Your task to perform on an android device: Open the Play Movies app and select the watchlist tab. Image 0: 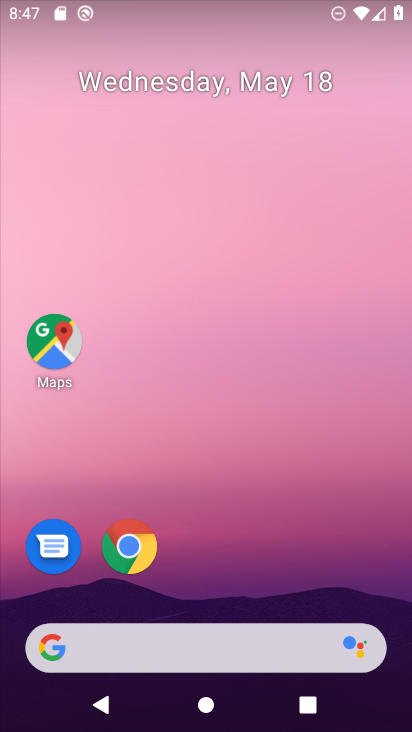
Step 0: press home button
Your task to perform on an android device: Open the Play Movies app and select the watchlist tab. Image 1: 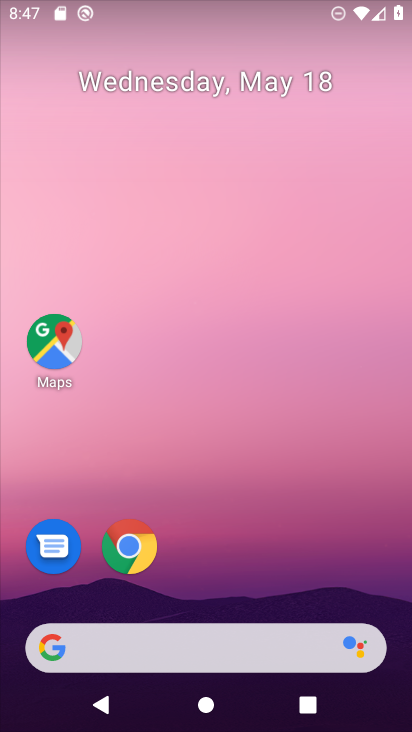
Step 1: drag from (191, 681) to (387, 208)
Your task to perform on an android device: Open the Play Movies app and select the watchlist tab. Image 2: 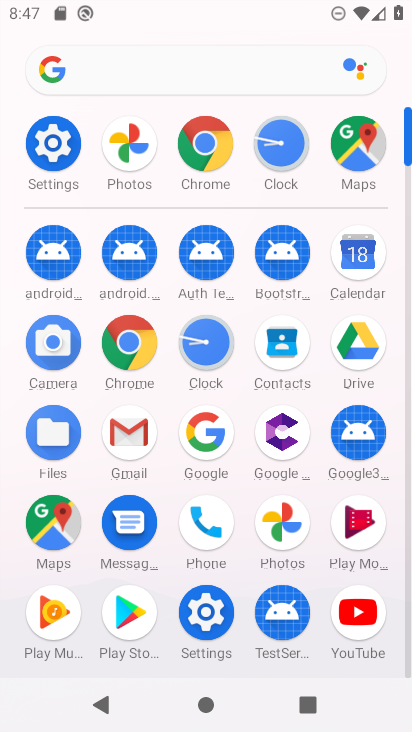
Step 2: click (142, 606)
Your task to perform on an android device: Open the Play Movies app and select the watchlist tab. Image 3: 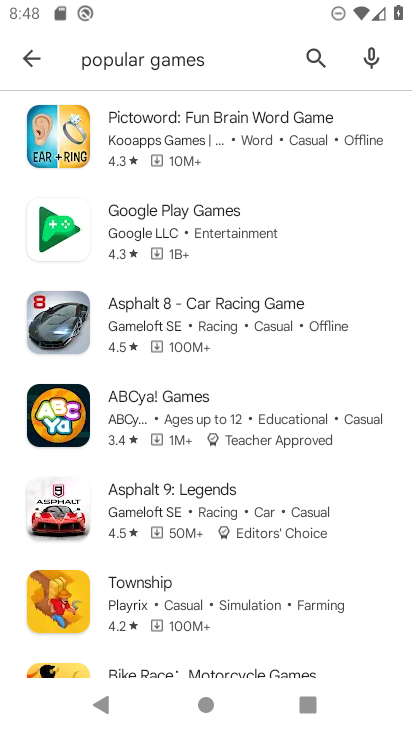
Step 3: press home button
Your task to perform on an android device: Open the Play Movies app and select the watchlist tab. Image 4: 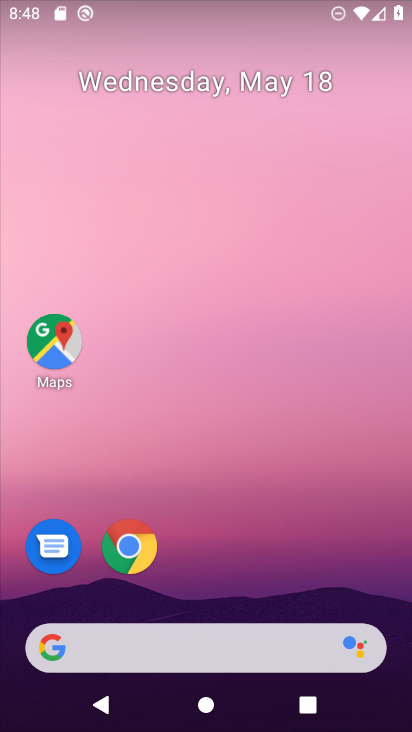
Step 4: drag from (231, 677) to (411, 163)
Your task to perform on an android device: Open the Play Movies app and select the watchlist tab. Image 5: 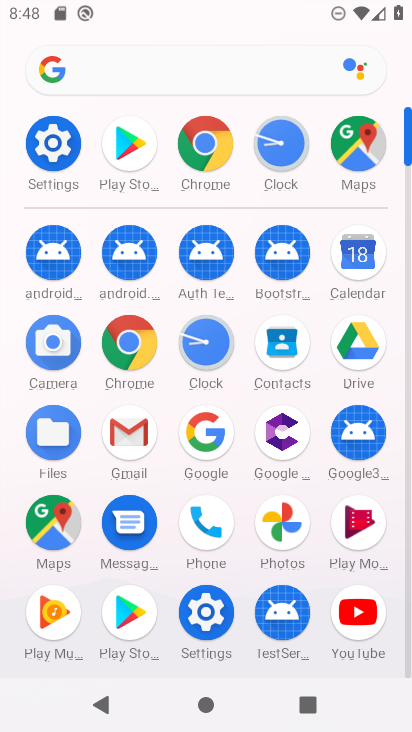
Step 5: click (364, 534)
Your task to perform on an android device: Open the Play Movies app and select the watchlist tab. Image 6: 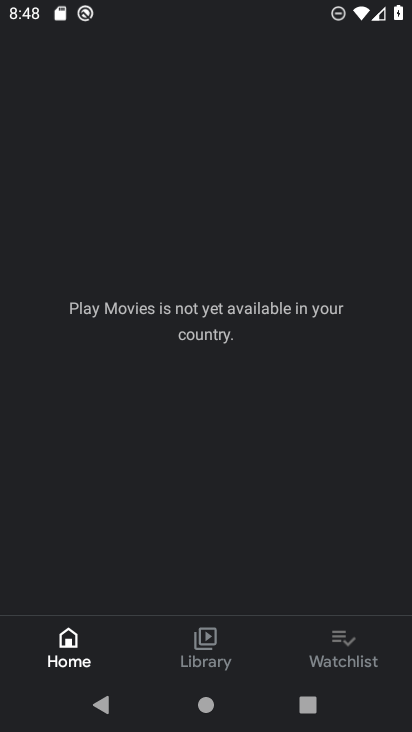
Step 6: click (343, 657)
Your task to perform on an android device: Open the Play Movies app and select the watchlist tab. Image 7: 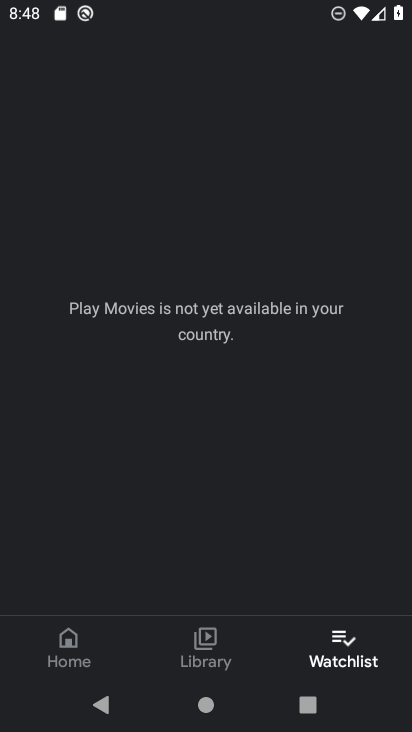
Step 7: task complete